Your task to perform on an android device: turn off notifications in google photos Image 0: 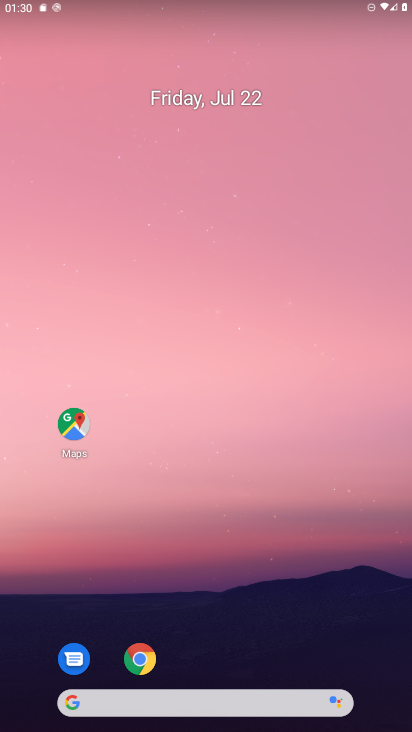
Step 0: drag from (206, 698) to (104, 105)
Your task to perform on an android device: turn off notifications in google photos Image 1: 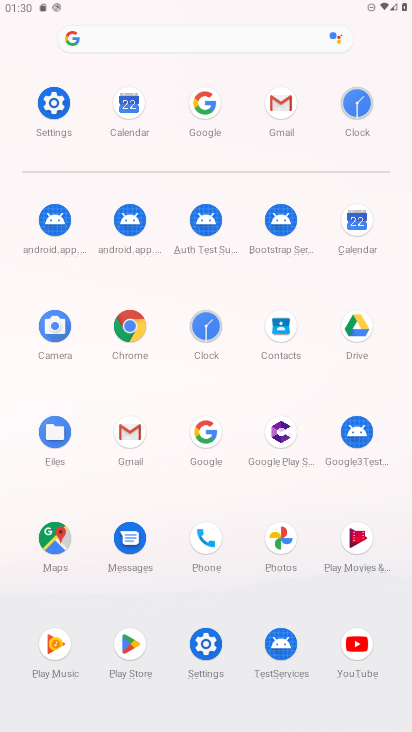
Step 1: click (282, 538)
Your task to perform on an android device: turn off notifications in google photos Image 2: 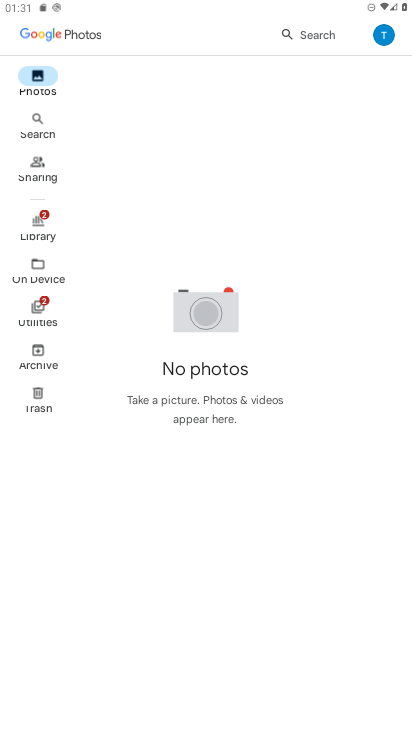
Step 2: click (382, 34)
Your task to perform on an android device: turn off notifications in google photos Image 3: 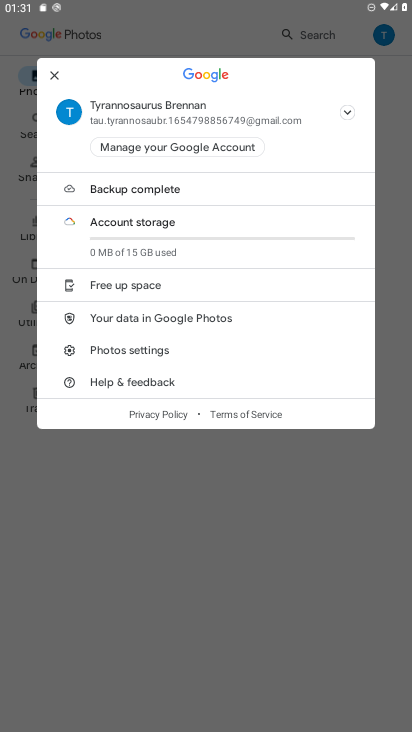
Step 3: click (147, 350)
Your task to perform on an android device: turn off notifications in google photos Image 4: 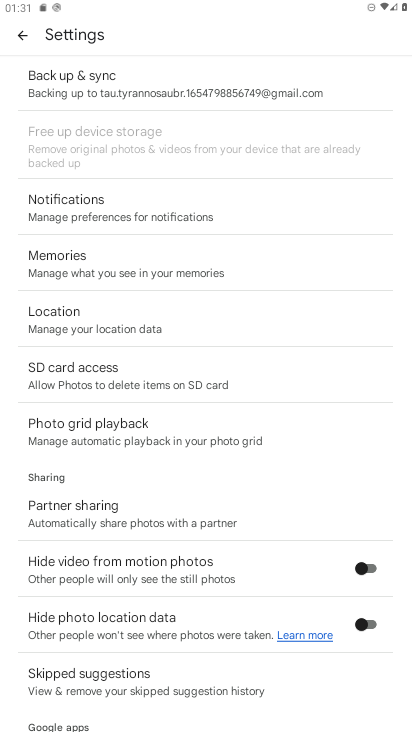
Step 4: click (138, 214)
Your task to perform on an android device: turn off notifications in google photos Image 5: 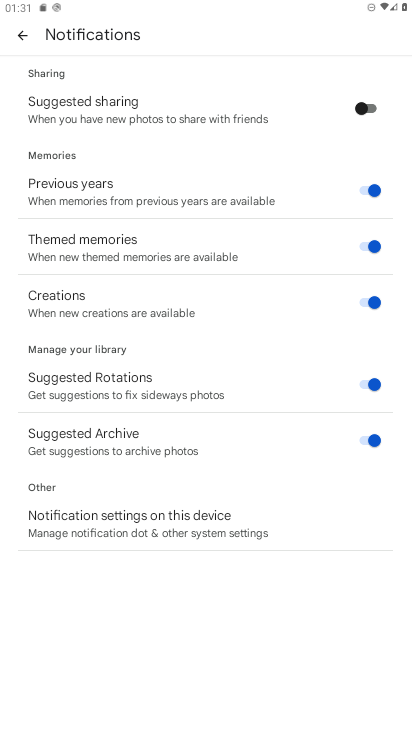
Step 5: click (130, 529)
Your task to perform on an android device: turn off notifications in google photos Image 6: 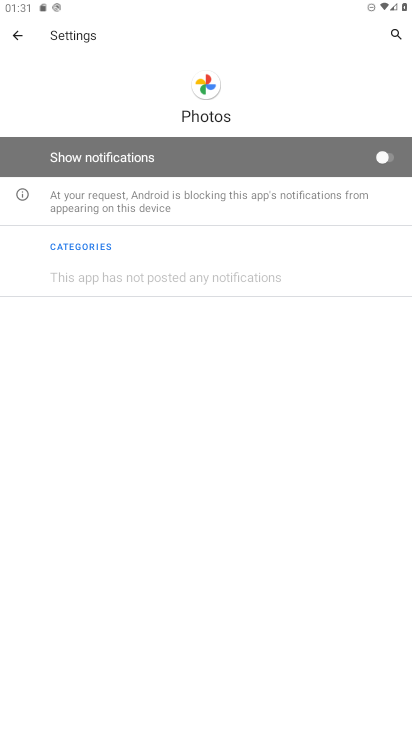
Step 6: task complete